Your task to perform on an android device: change the clock display to show seconds Image 0: 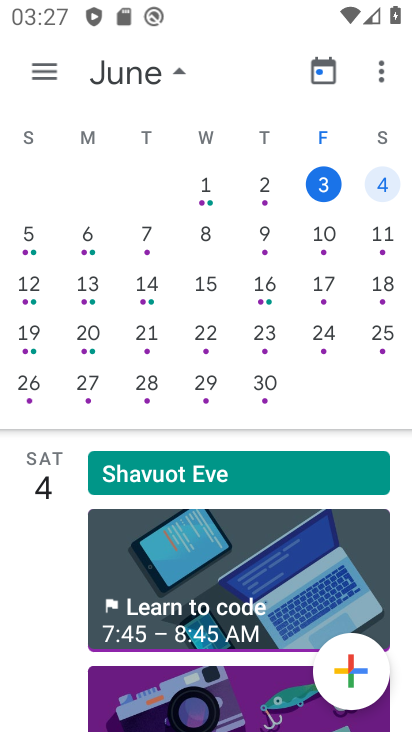
Step 0: press home button
Your task to perform on an android device: change the clock display to show seconds Image 1: 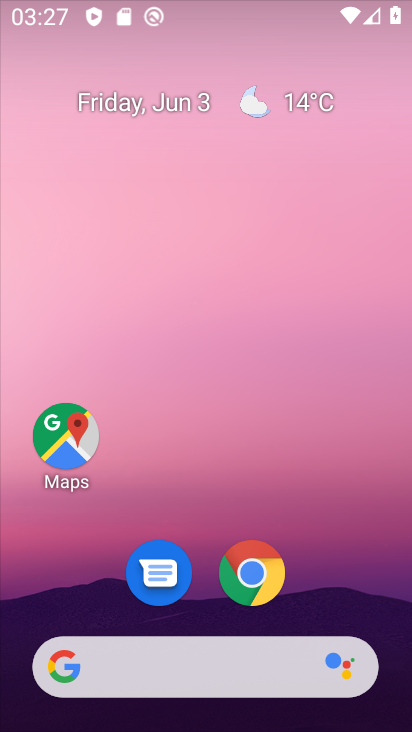
Step 1: drag from (239, 657) to (411, 188)
Your task to perform on an android device: change the clock display to show seconds Image 2: 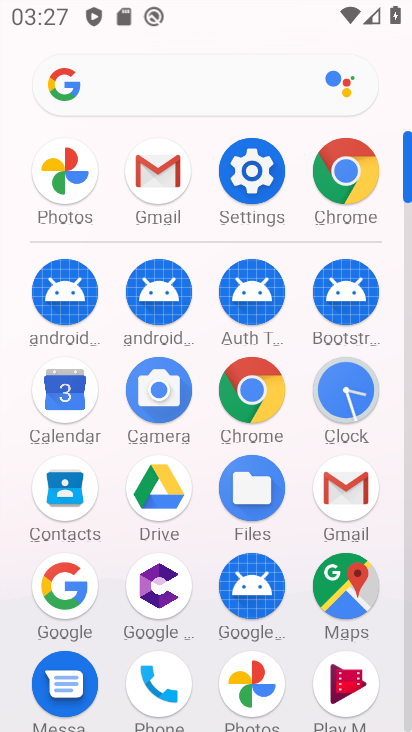
Step 2: click (353, 383)
Your task to perform on an android device: change the clock display to show seconds Image 3: 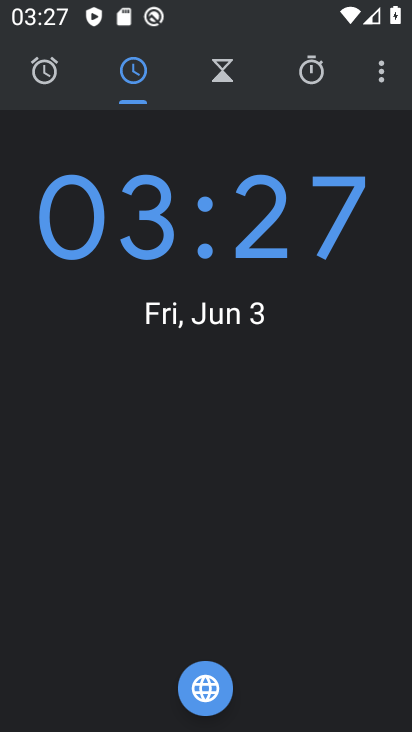
Step 3: click (384, 74)
Your task to perform on an android device: change the clock display to show seconds Image 4: 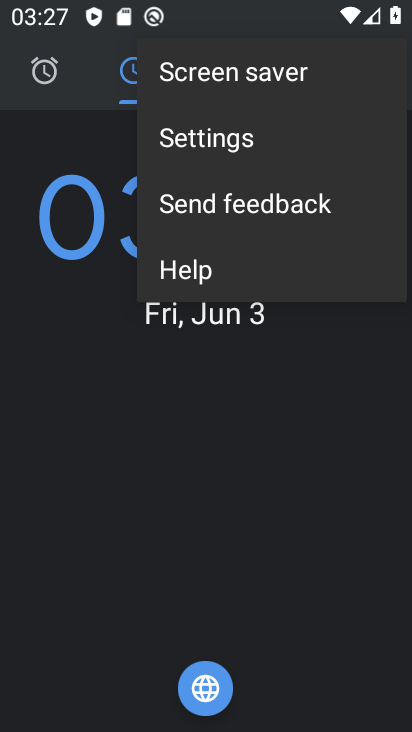
Step 4: click (270, 133)
Your task to perform on an android device: change the clock display to show seconds Image 5: 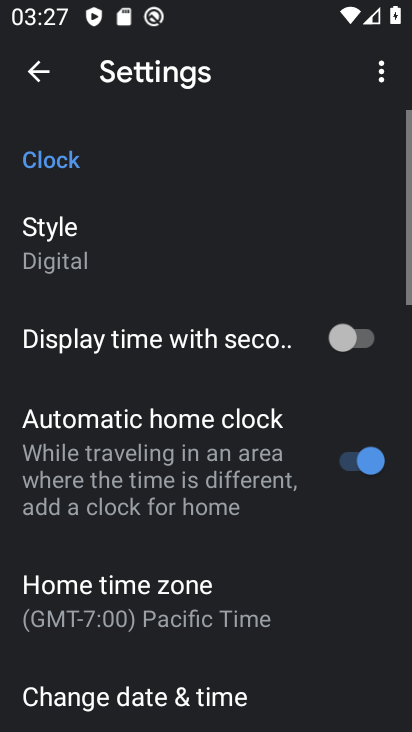
Step 5: click (370, 340)
Your task to perform on an android device: change the clock display to show seconds Image 6: 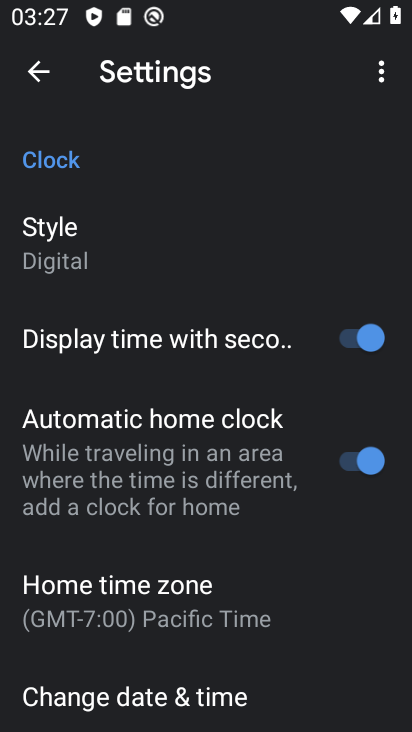
Step 6: task complete